Your task to perform on an android device: add a contact Image 0: 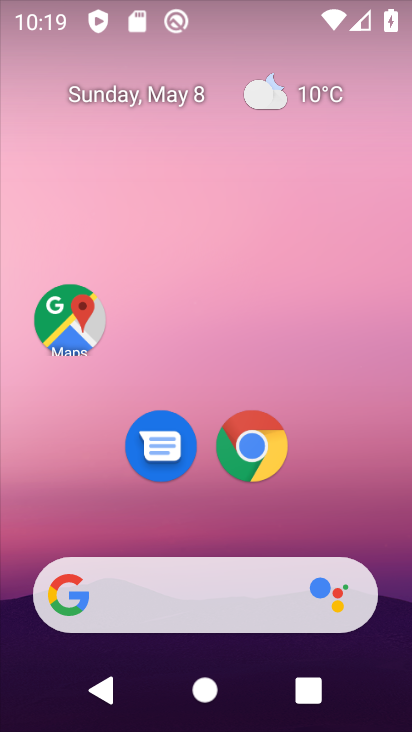
Step 0: drag from (342, 527) to (353, 40)
Your task to perform on an android device: add a contact Image 1: 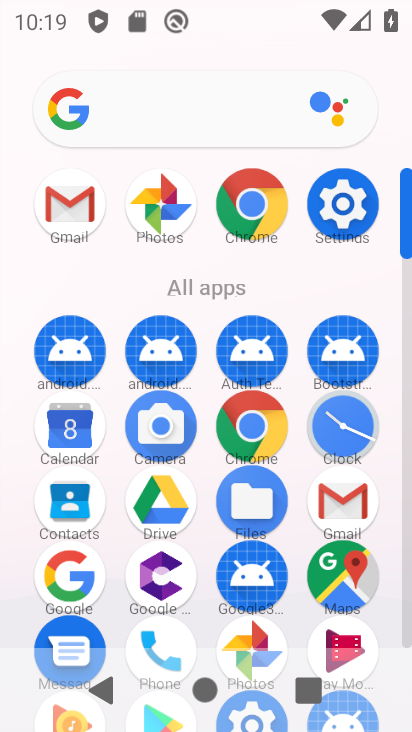
Step 1: click (69, 506)
Your task to perform on an android device: add a contact Image 2: 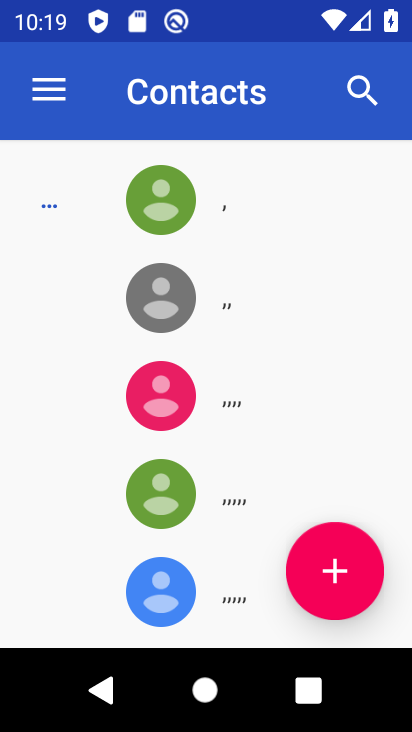
Step 2: click (338, 577)
Your task to perform on an android device: add a contact Image 3: 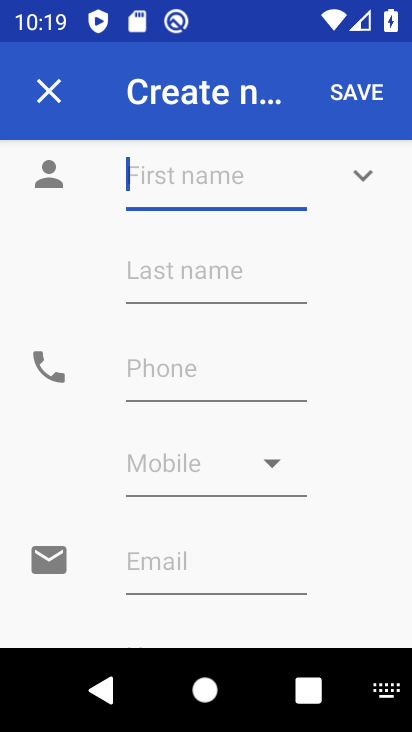
Step 3: click (181, 162)
Your task to perform on an android device: add a contact Image 4: 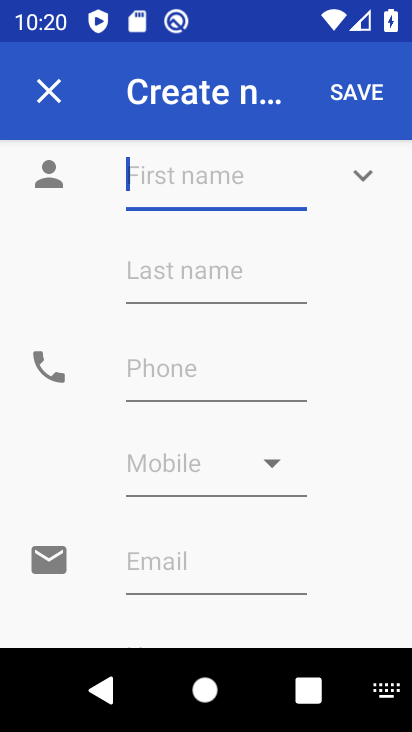
Step 4: type "sita"
Your task to perform on an android device: add a contact Image 5: 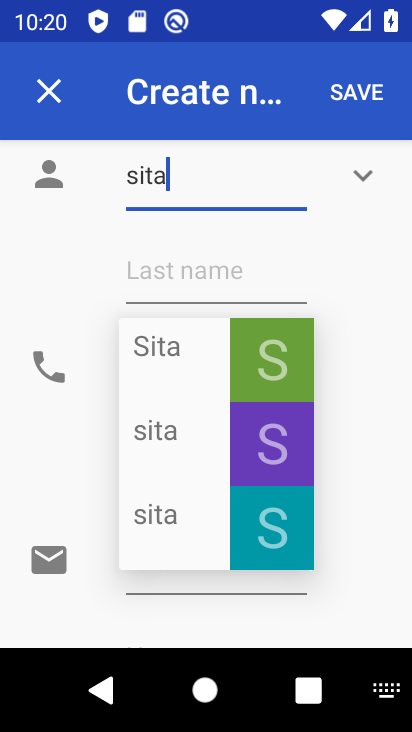
Step 5: click (339, 324)
Your task to perform on an android device: add a contact Image 6: 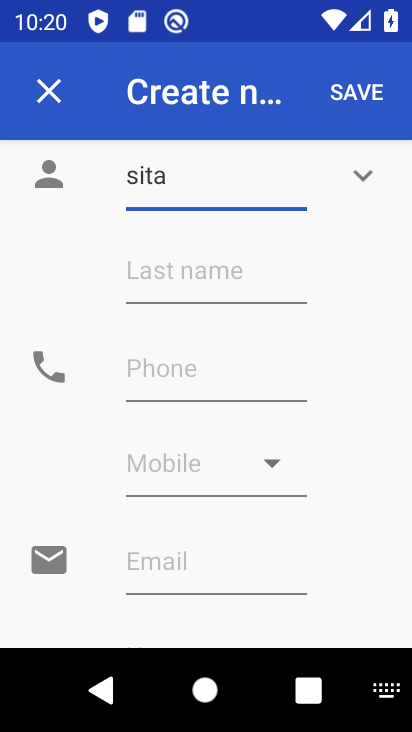
Step 6: click (164, 352)
Your task to perform on an android device: add a contact Image 7: 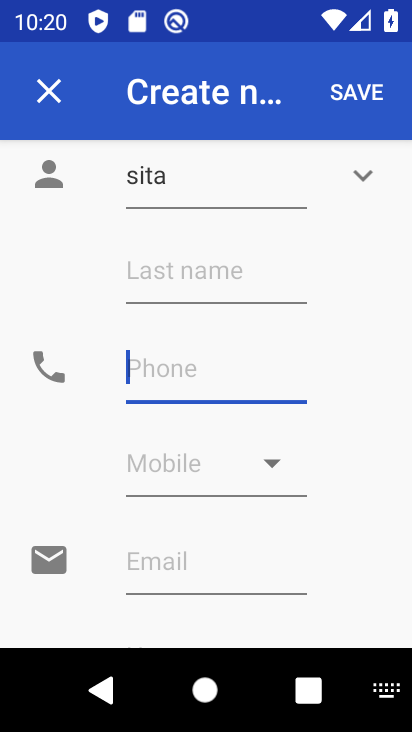
Step 7: type "76859483736"
Your task to perform on an android device: add a contact Image 8: 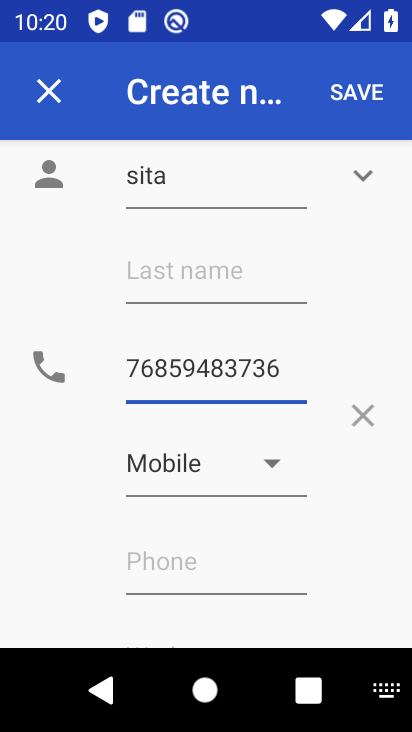
Step 8: click (329, 101)
Your task to perform on an android device: add a contact Image 9: 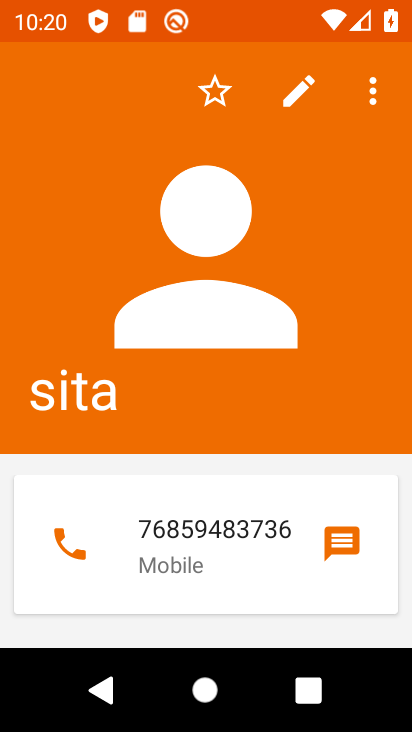
Step 9: task complete